Your task to perform on an android device: Open Google Chrome Image 0: 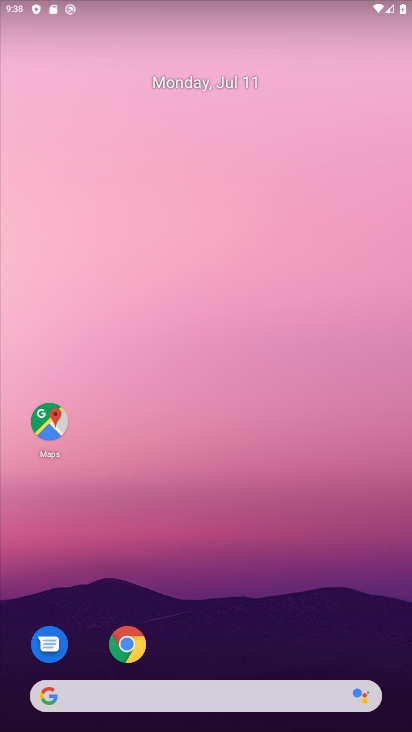
Step 0: click (125, 641)
Your task to perform on an android device: Open Google Chrome Image 1: 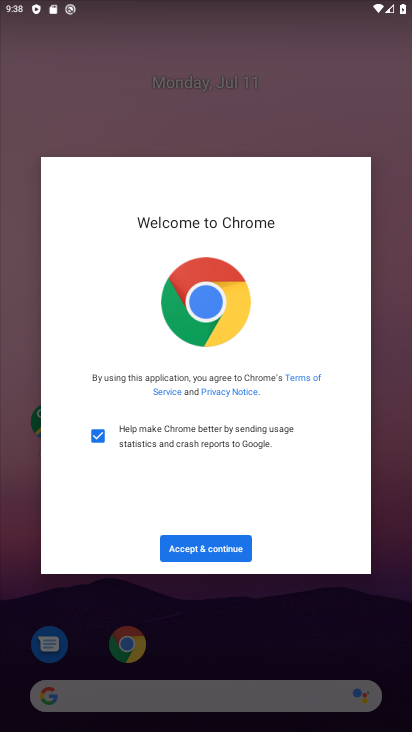
Step 1: click (226, 550)
Your task to perform on an android device: Open Google Chrome Image 2: 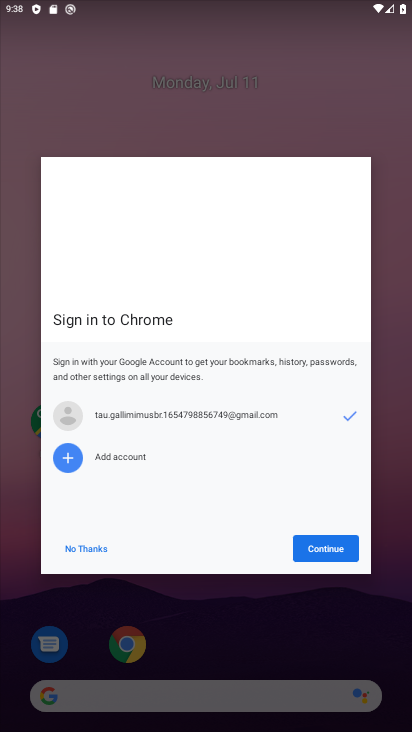
Step 2: click (313, 536)
Your task to perform on an android device: Open Google Chrome Image 3: 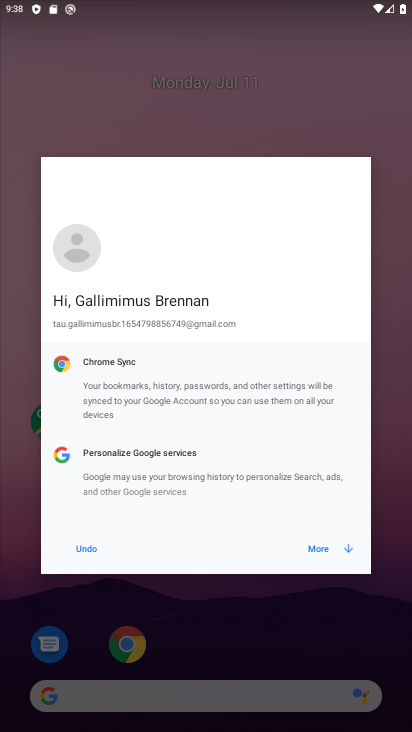
Step 3: click (313, 542)
Your task to perform on an android device: Open Google Chrome Image 4: 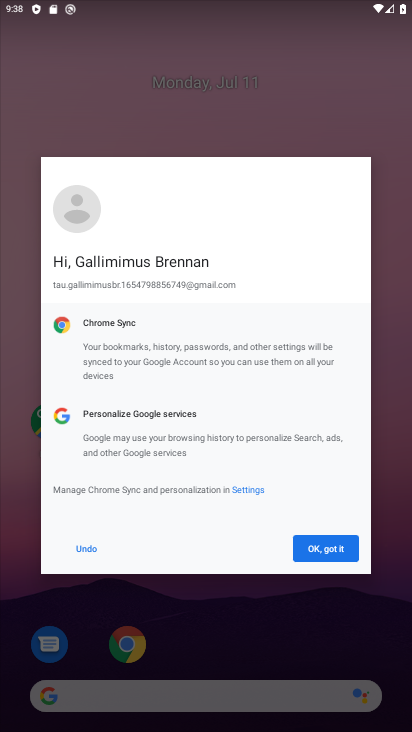
Step 4: click (320, 542)
Your task to perform on an android device: Open Google Chrome Image 5: 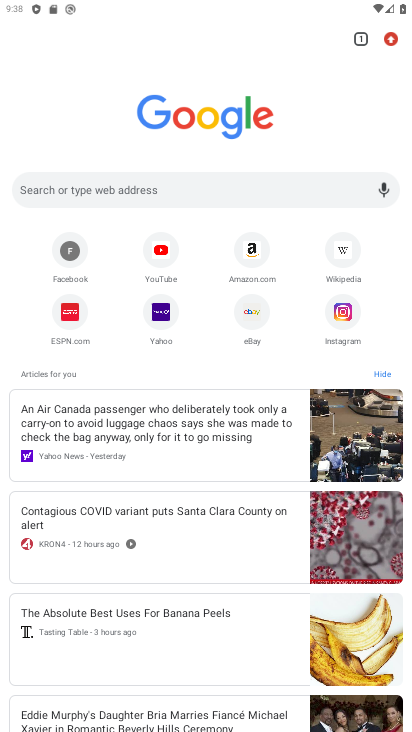
Step 5: task complete